Your task to perform on an android device: change the clock display to analog Image 0: 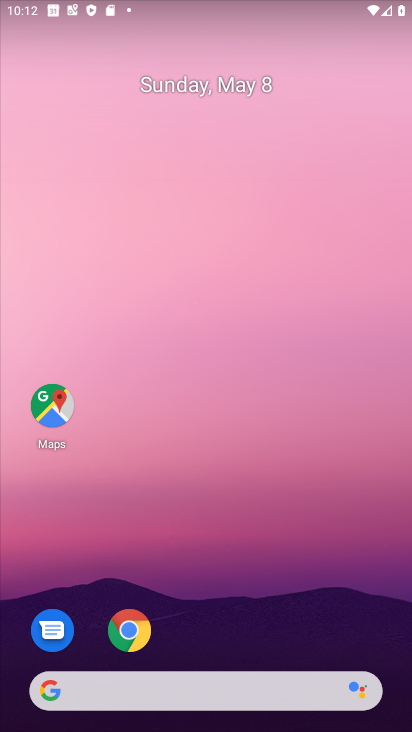
Step 0: drag from (210, 724) to (210, 170)
Your task to perform on an android device: change the clock display to analog Image 1: 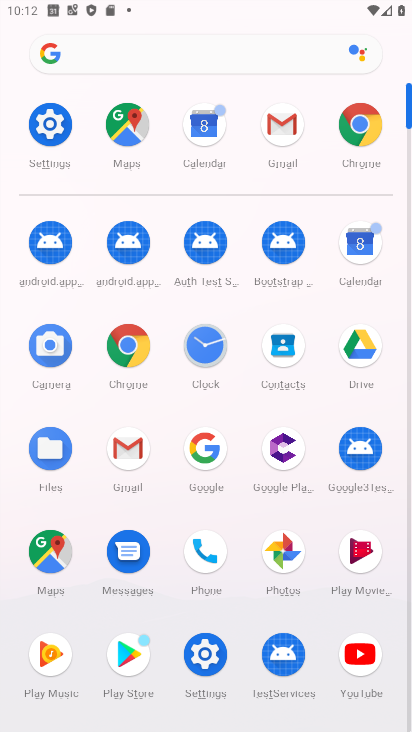
Step 1: click (201, 349)
Your task to perform on an android device: change the clock display to analog Image 2: 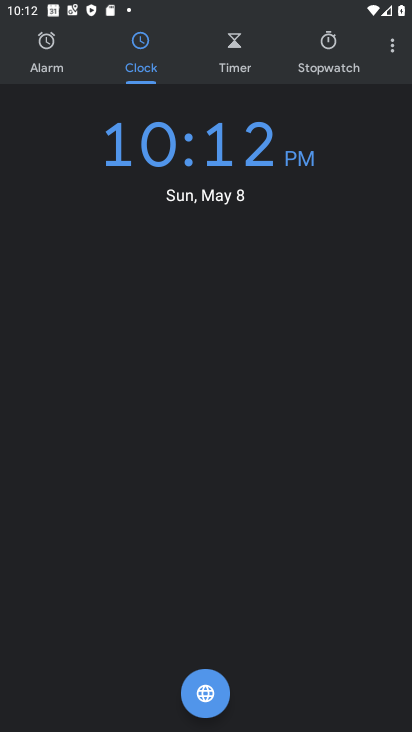
Step 2: click (397, 45)
Your task to perform on an android device: change the clock display to analog Image 3: 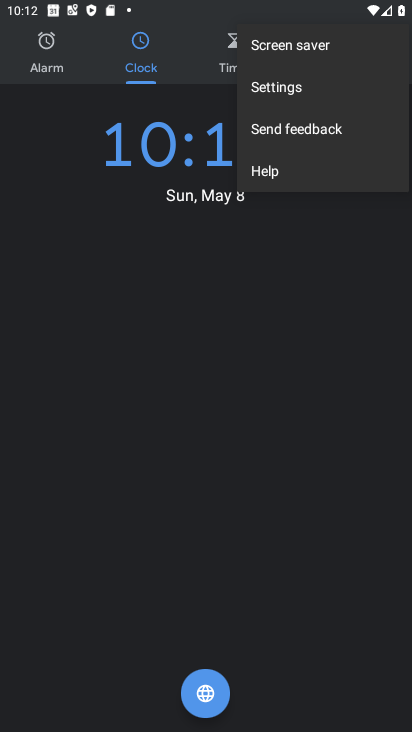
Step 3: click (276, 83)
Your task to perform on an android device: change the clock display to analog Image 4: 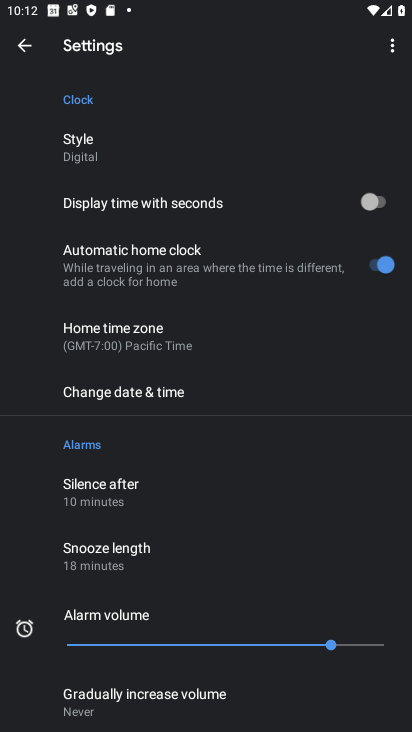
Step 4: click (383, 207)
Your task to perform on an android device: change the clock display to analog Image 5: 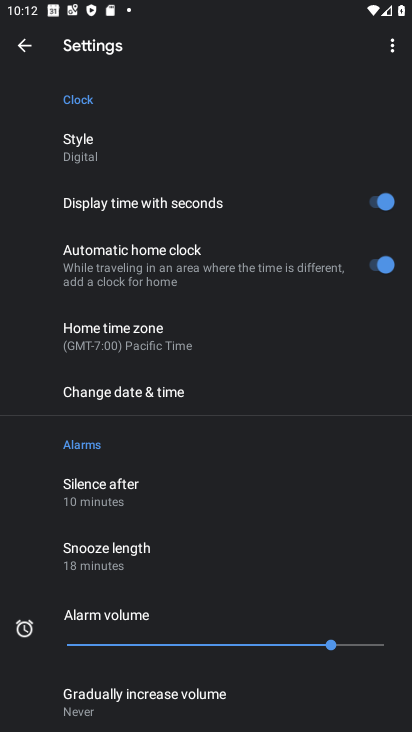
Step 5: task complete